Your task to perform on an android device: find which apps use the phone's location Image 0: 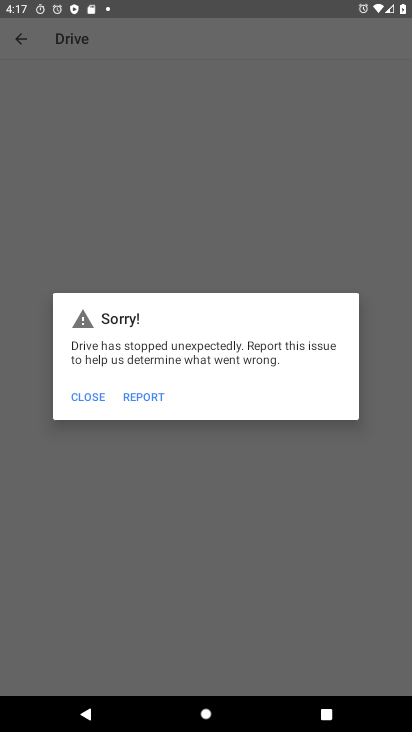
Step 0: press home button
Your task to perform on an android device: find which apps use the phone's location Image 1: 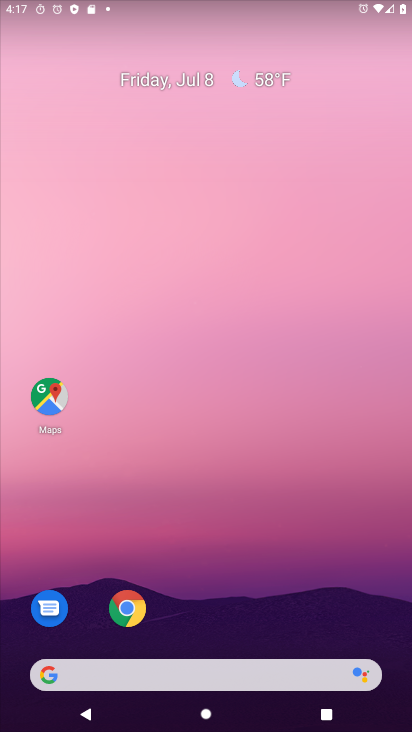
Step 1: click (237, 597)
Your task to perform on an android device: find which apps use the phone's location Image 2: 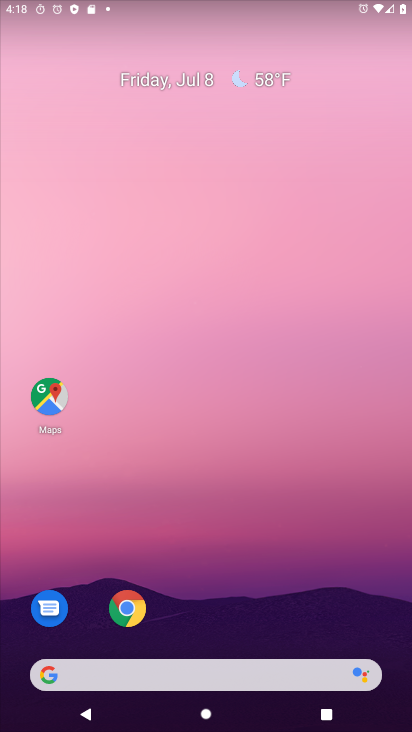
Step 2: drag from (237, 588) to (293, 11)
Your task to perform on an android device: find which apps use the phone's location Image 3: 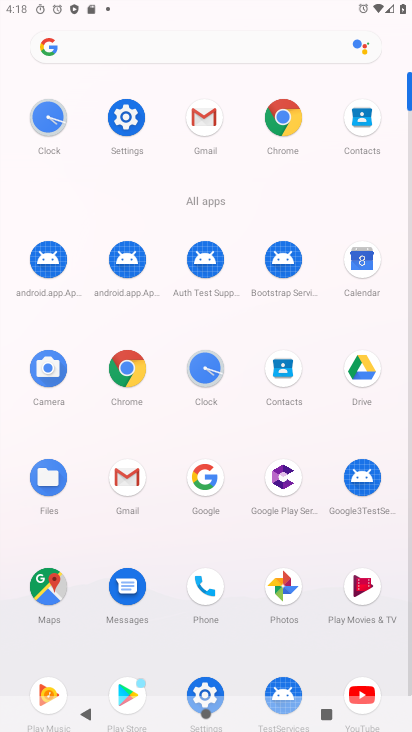
Step 3: click (123, 125)
Your task to perform on an android device: find which apps use the phone's location Image 4: 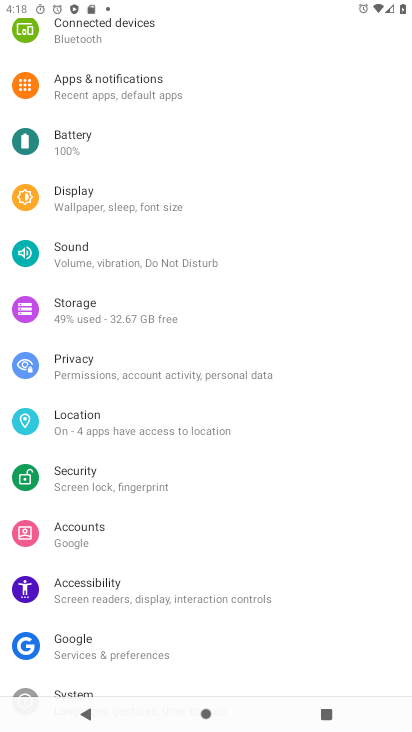
Step 4: click (70, 433)
Your task to perform on an android device: find which apps use the phone's location Image 5: 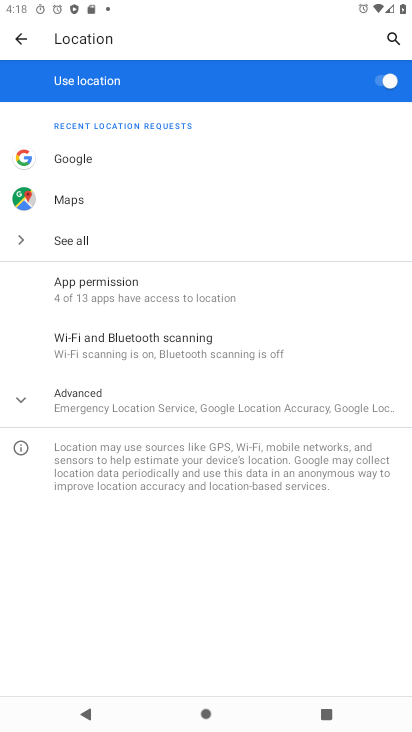
Step 5: click (188, 298)
Your task to perform on an android device: find which apps use the phone's location Image 6: 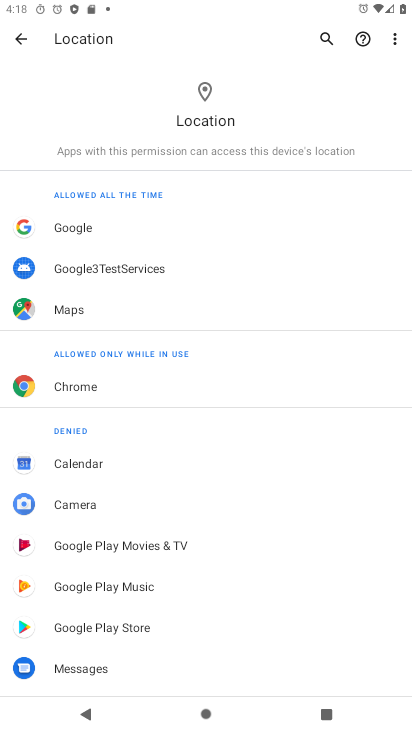
Step 6: task complete